Your task to perform on an android device: Open accessibility settings Image 0: 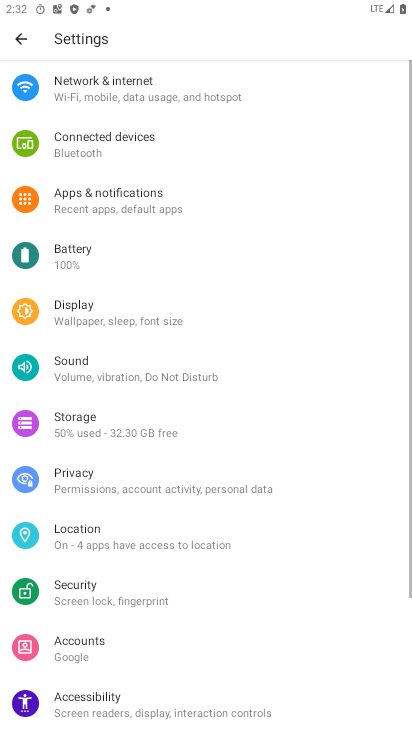
Step 0: press home button
Your task to perform on an android device: Open accessibility settings Image 1: 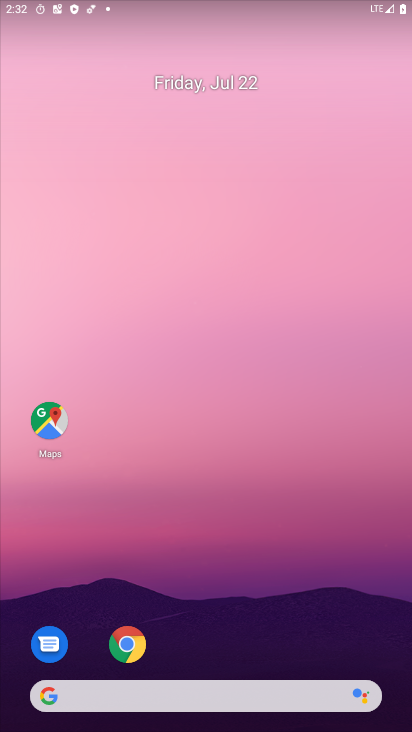
Step 1: drag from (222, 613) to (289, 124)
Your task to perform on an android device: Open accessibility settings Image 2: 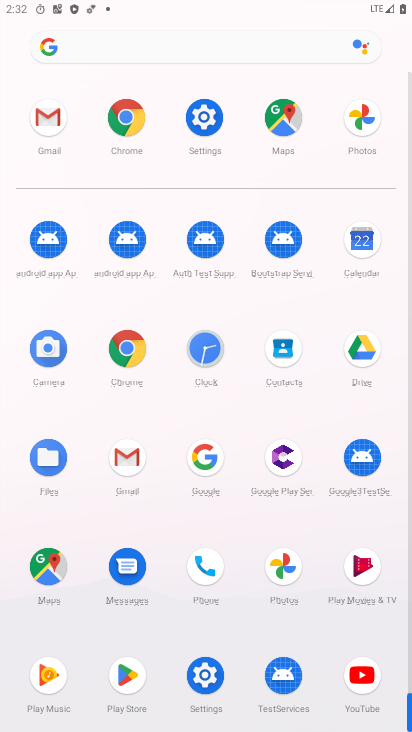
Step 2: click (197, 139)
Your task to perform on an android device: Open accessibility settings Image 3: 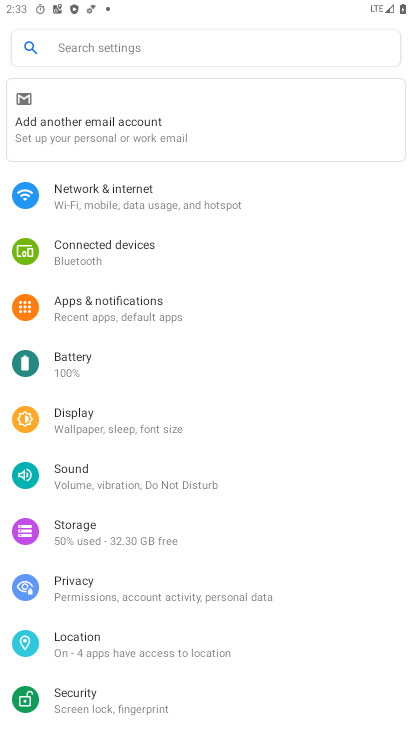
Step 3: drag from (151, 515) to (185, 278)
Your task to perform on an android device: Open accessibility settings Image 4: 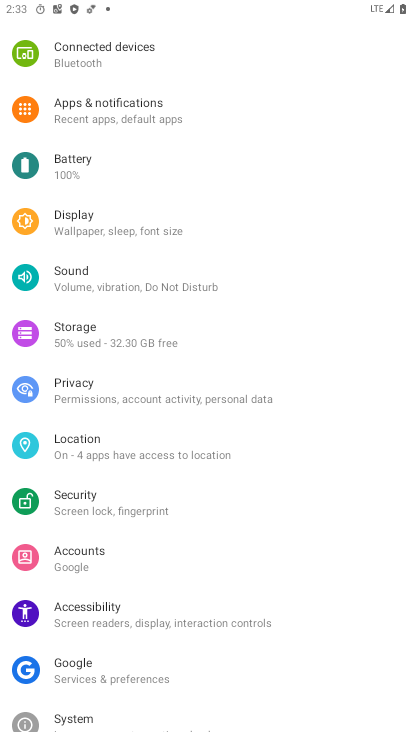
Step 4: click (132, 621)
Your task to perform on an android device: Open accessibility settings Image 5: 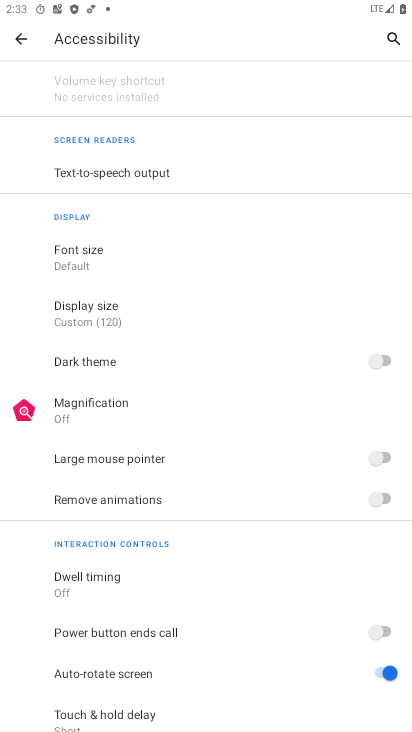
Step 5: task complete